Your task to perform on an android device: Open eBay Image 0: 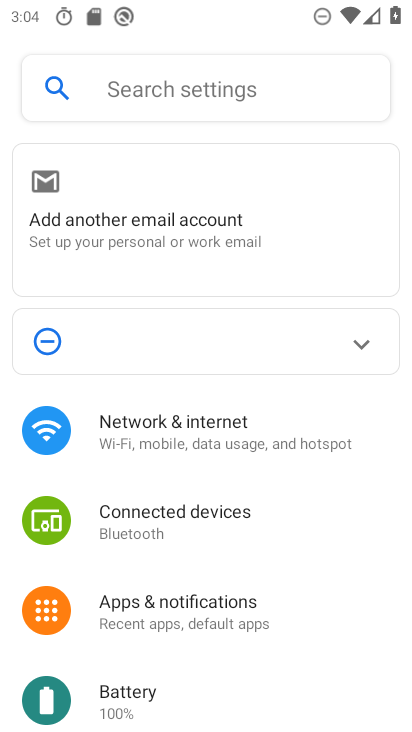
Step 0: drag from (219, 672) to (271, 383)
Your task to perform on an android device: Open eBay Image 1: 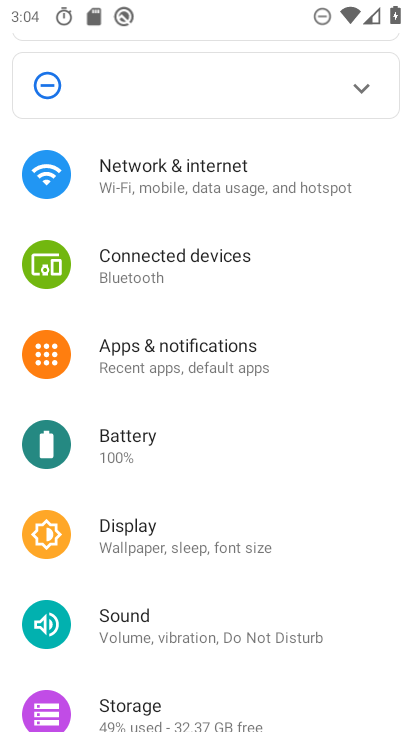
Step 1: drag from (211, 673) to (223, 409)
Your task to perform on an android device: Open eBay Image 2: 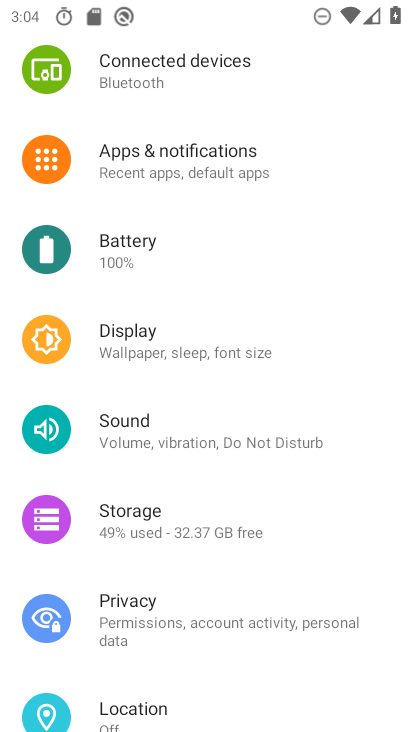
Step 2: press home button
Your task to perform on an android device: Open eBay Image 3: 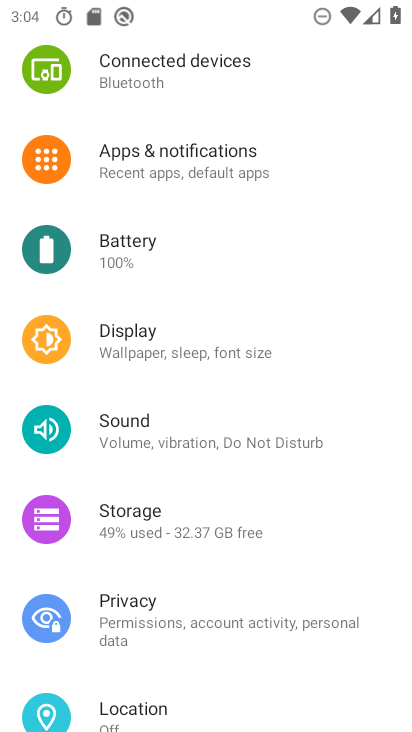
Step 3: press home button
Your task to perform on an android device: Open eBay Image 4: 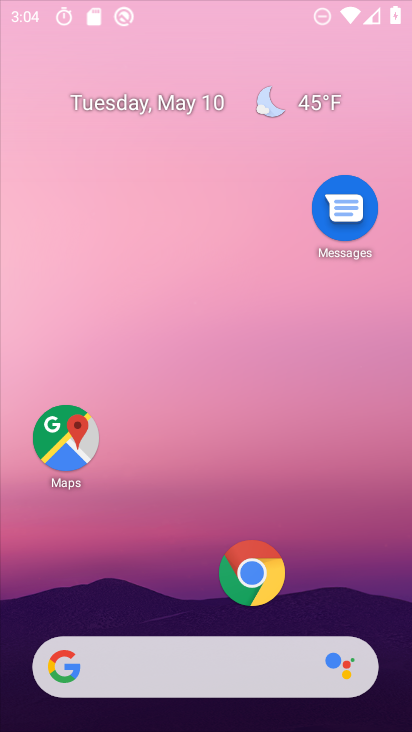
Step 4: drag from (171, 600) to (271, 138)
Your task to perform on an android device: Open eBay Image 5: 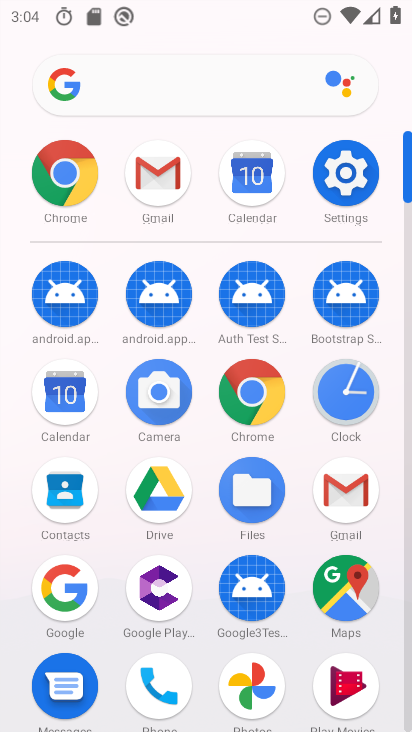
Step 5: click (243, 86)
Your task to perform on an android device: Open eBay Image 6: 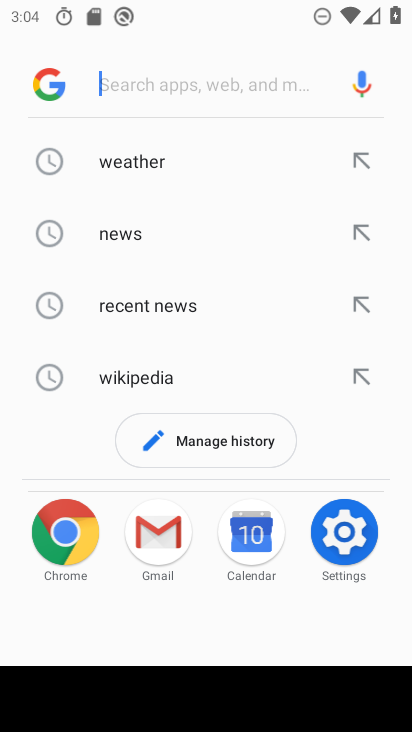
Step 6: type "ebay"
Your task to perform on an android device: Open eBay Image 7: 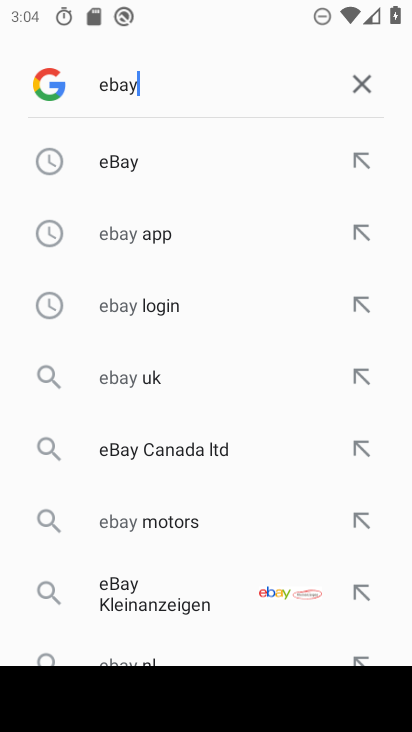
Step 7: click (175, 156)
Your task to perform on an android device: Open eBay Image 8: 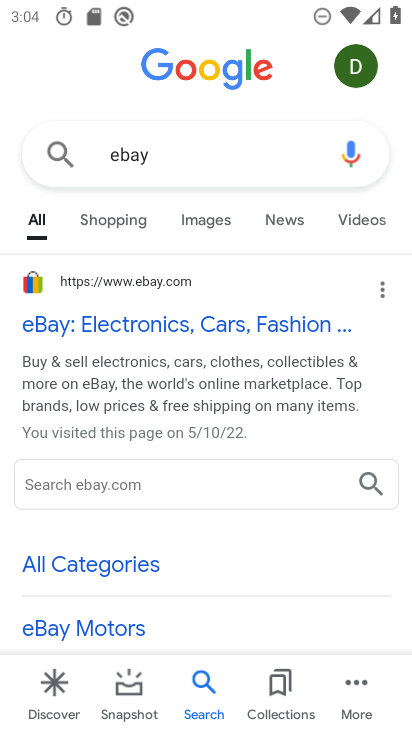
Step 8: click (115, 326)
Your task to perform on an android device: Open eBay Image 9: 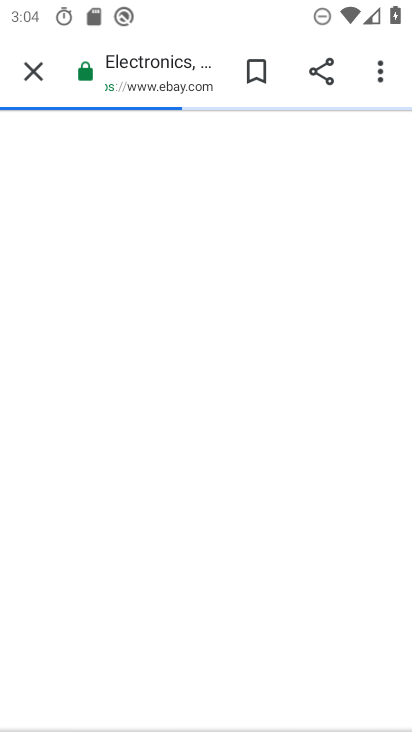
Step 9: task complete